Your task to perform on an android device: Open settings Image 0: 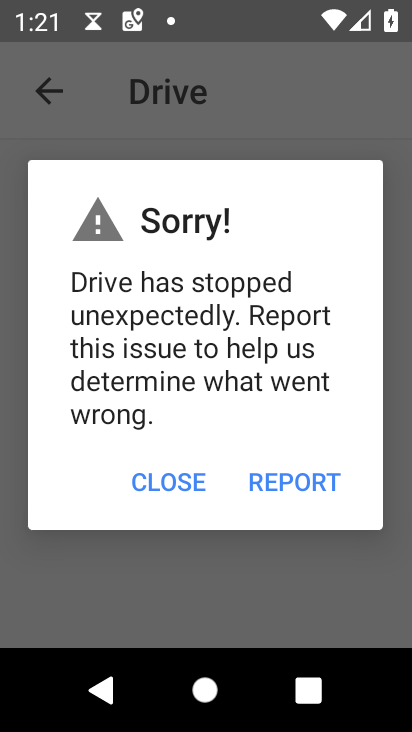
Step 0: press home button
Your task to perform on an android device: Open settings Image 1: 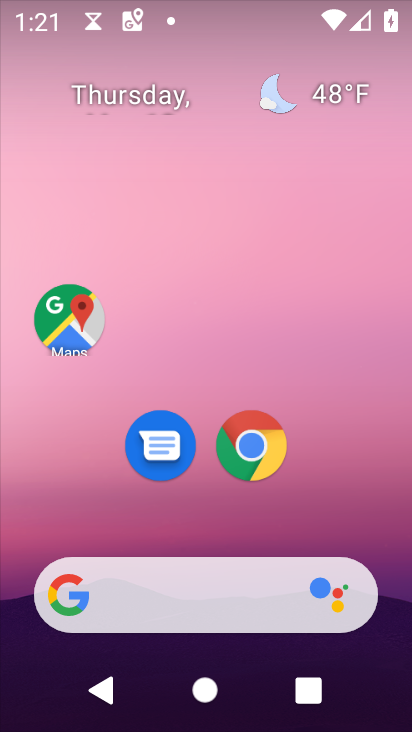
Step 1: drag from (288, 534) to (343, 47)
Your task to perform on an android device: Open settings Image 2: 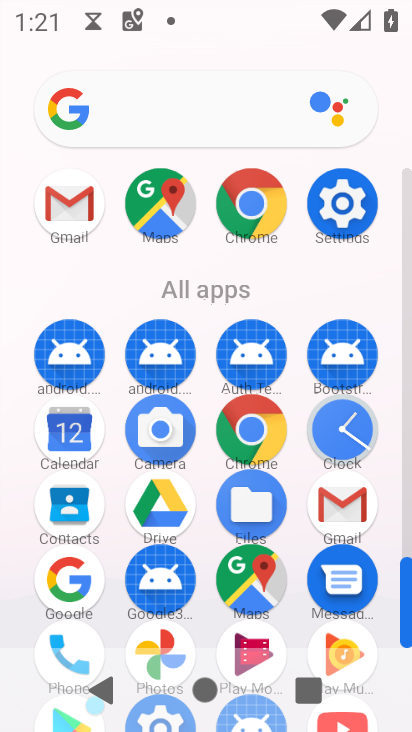
Step 2: click (339, 212)
Your task to perform on an android device: Open settings Image 3: 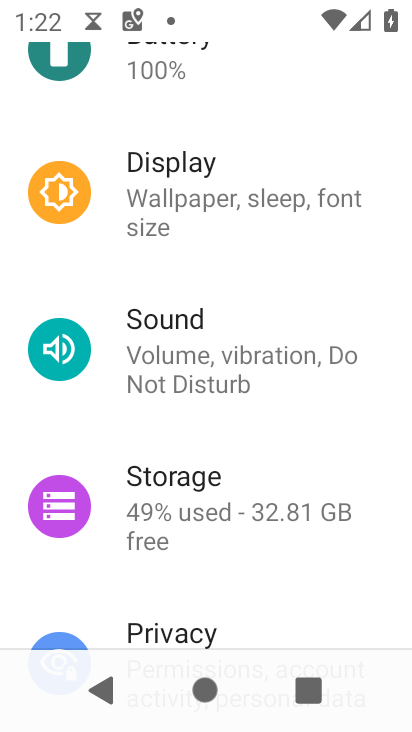
Step 3: task complete